Your task to perform on an android device: check storage Image 0: 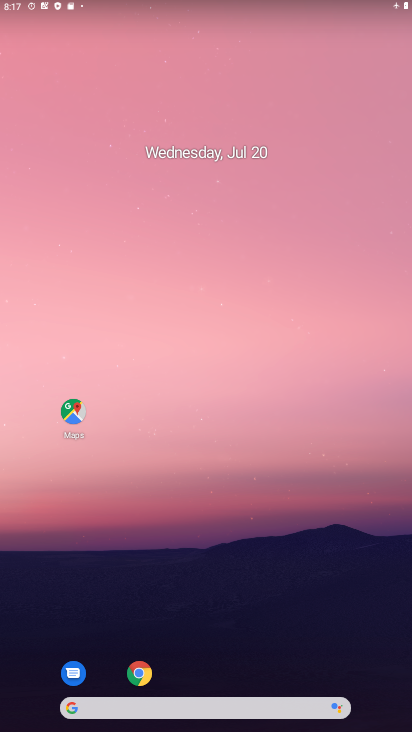
Step 0: drag from (348, 646) to (194, 76)
Your task to perform on an android device: check storage Image 1: 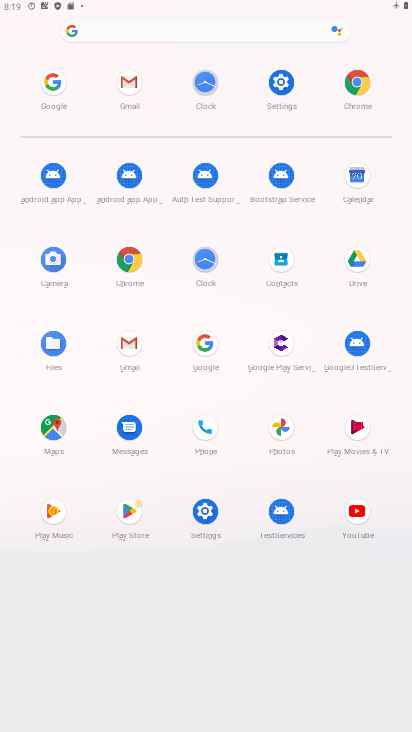
Step 1: click (203, 518)
Your task to perform on an android device: check storage Image 2: 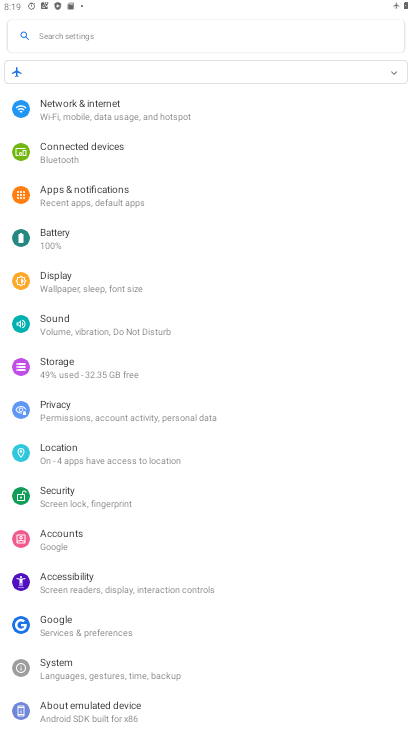
Step 2: click (48, 377)
Your task to perform on an android device: check storage Image 3: 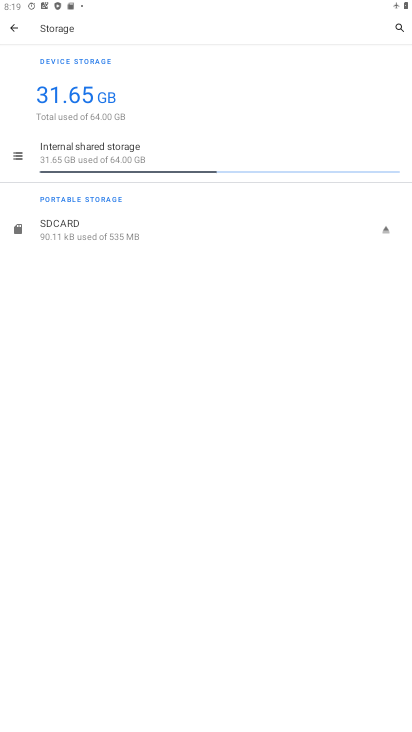
Step 3: click (60, 151)
Your task to perform on an android device: check storage Image 4: 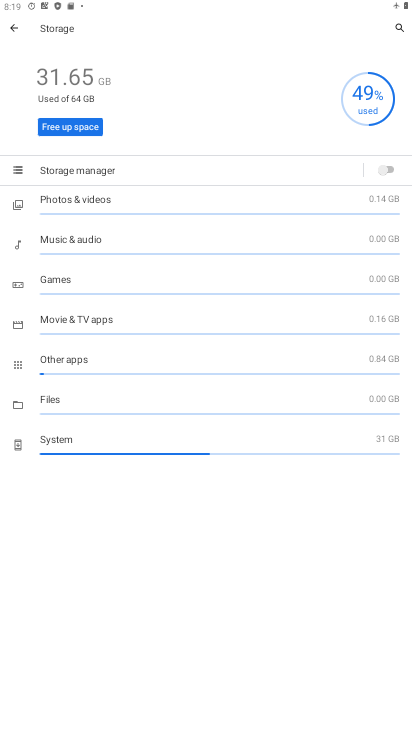
Step 4: task complete